Your task to perform on an android device: turn on priority inbox in the gmail app Image 0: 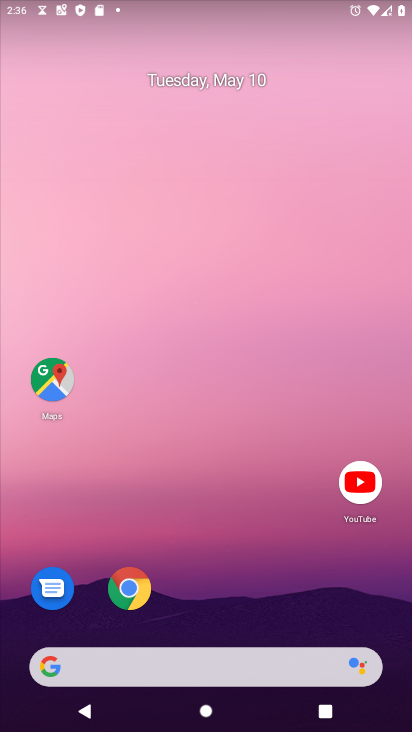
Step 0: drag from (159, 614) to (293, 194)
Your task to perform on an android device: turn on priority inbox in the gmail app Image 1: 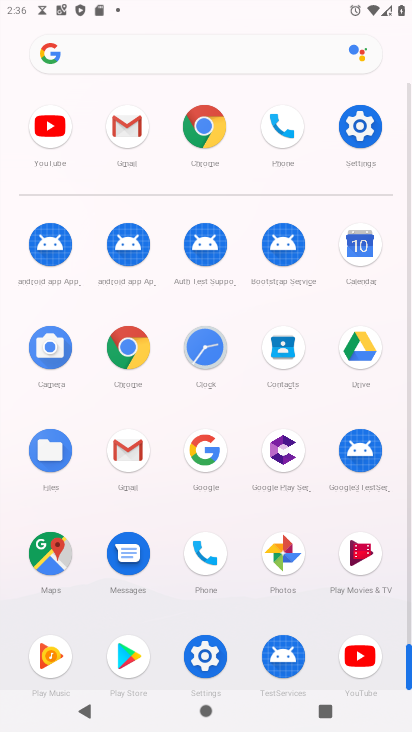
Step 1: click (127, 124)
Your task to perform on an android device: turn on priority inbox in the gmail app Image 2: 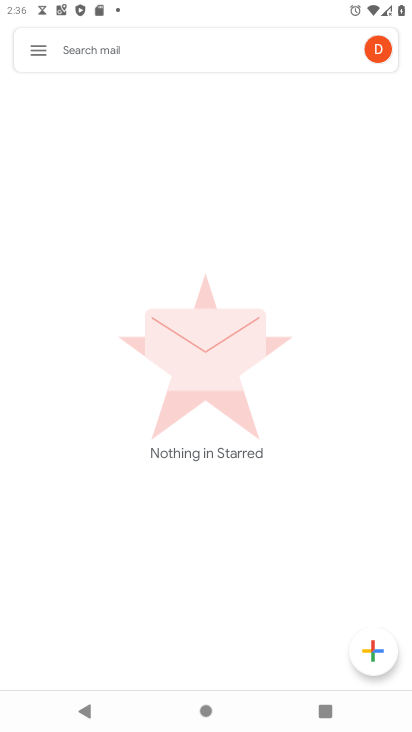
Step 2: click (41, 48)
Your task to perform on an android device: turn on priority inbox in the gmail app Image 3: 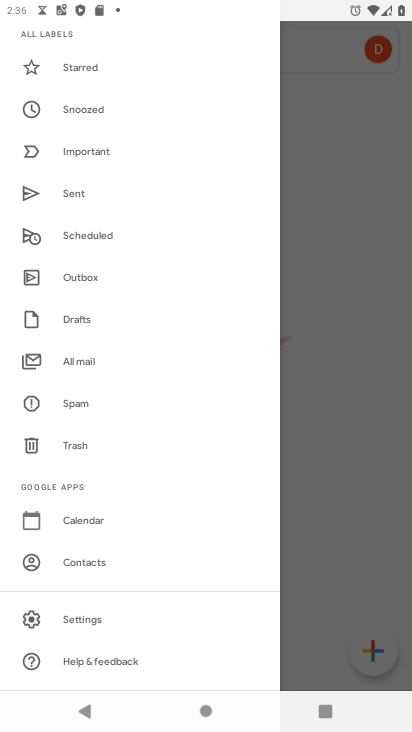
Step 3: click (112, 616)
Your task to perform on an android device: turn on priority inbox in the gmail app Image 4: 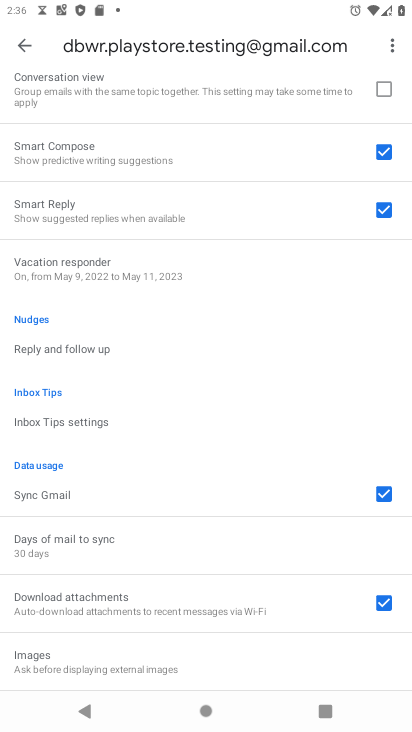
Step 4: drag from (124, 155) to (118, 565)
Your task to perform on an android device: turn on priority inbox in the gmail app Image 5: 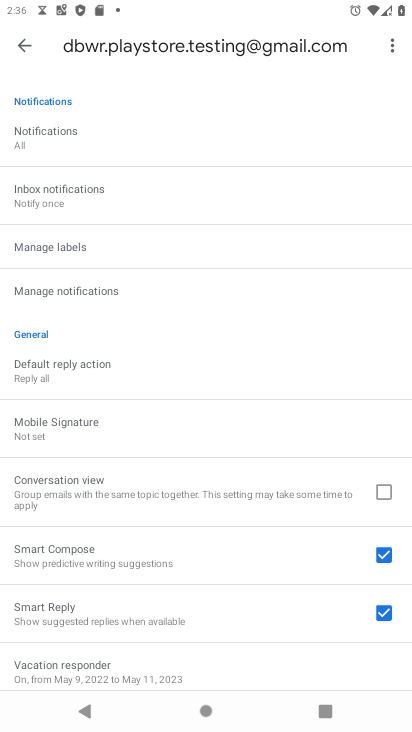
Step 5: drag from (108, 174) to (118, 378)
Your task to perform on an android device: turn on priority inbox in the gmail app Image 6: 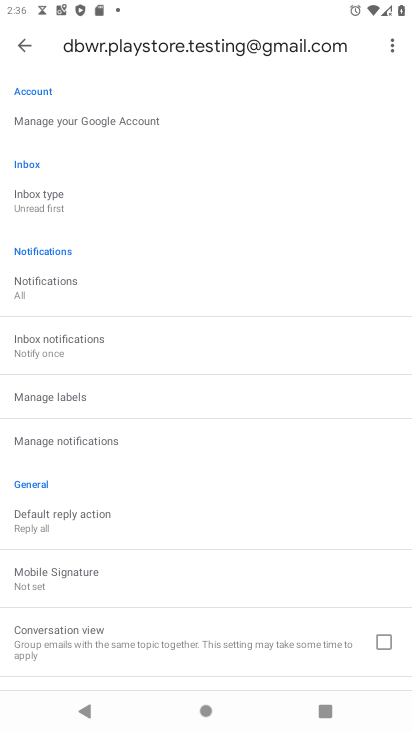
Step 6: click (86, 197)
Your task to perform on an android device: turn on priority inbox in the gmail app Image 7: 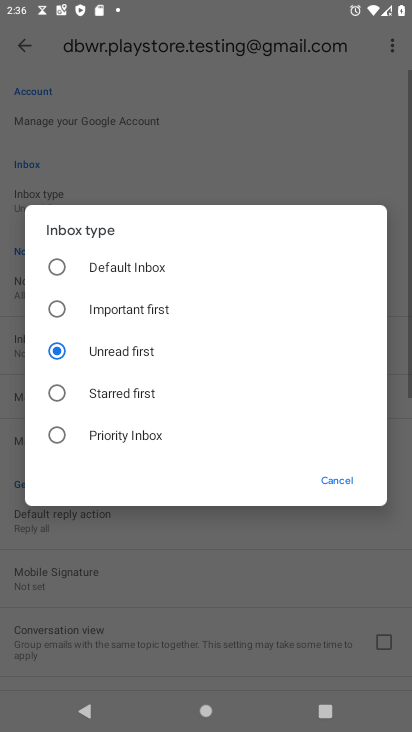
Step 7: click (101, 435)
Your task to perform on an android device: turn on priority inbox in the gmail app Image 8: 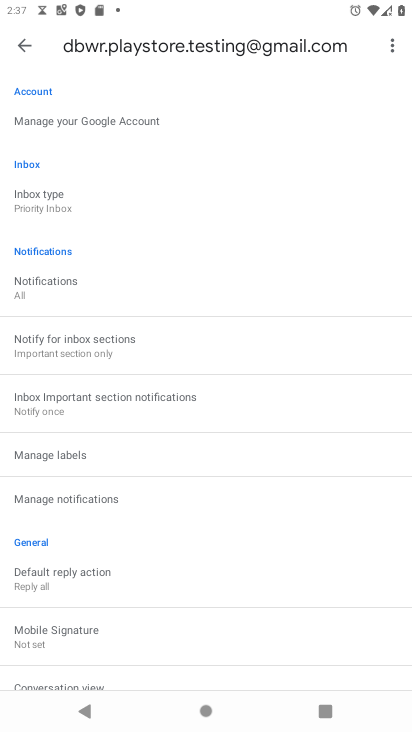
Step 8: task complete